Your task to perform on an android device: toggle javascript in the chrome app Image 0: 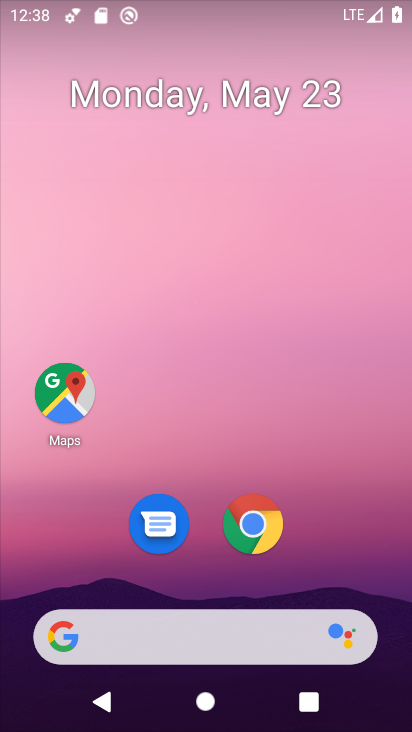
Step 0: click (261, 519)
Your task to perform on an android device: toggle javascript in the chrome app Image 1: 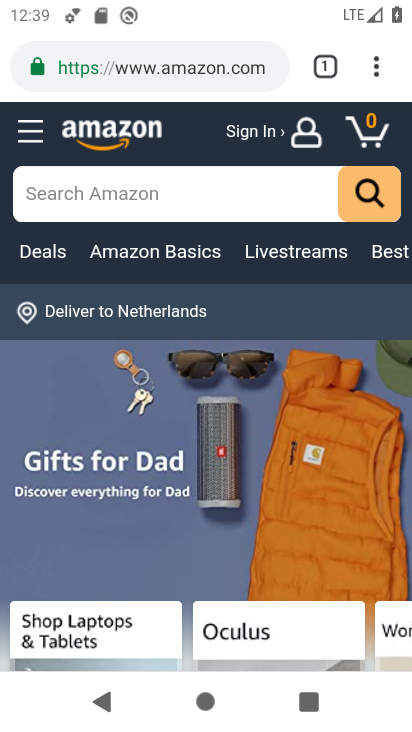
Step 1: click (373, 63)
Your task to perform on an android device: toggle javascript in the chrome app Image 2: 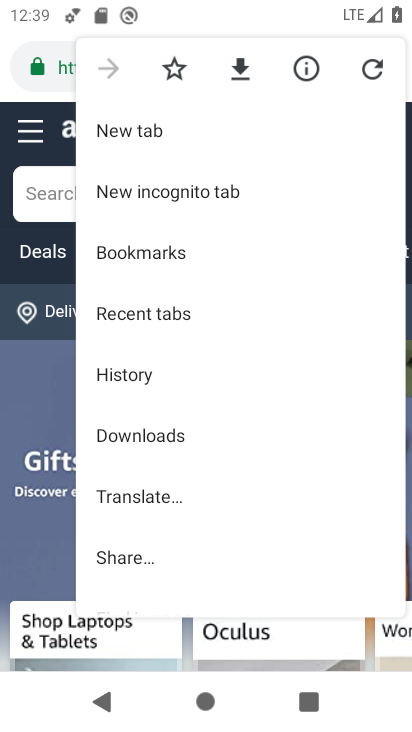
Step 2: drag from (261, 440) to (252, 187)
Your task to perform on an android device: toggle javascript in the chrome app Image 3: 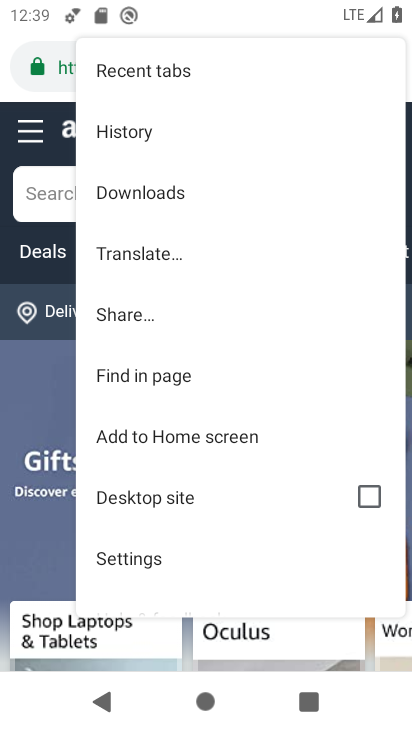
Step 3: click (159, 549)
Your task to perform on an android device: toggle javascript in the chrome app Image 4: 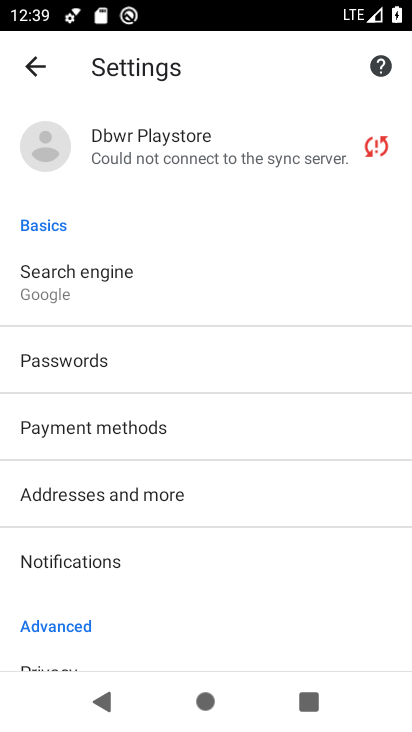
Step 4: drag from (254, 521) to (262, 127)
Your task to perform on an android device: toggle javascript in the chrome app Image 5: 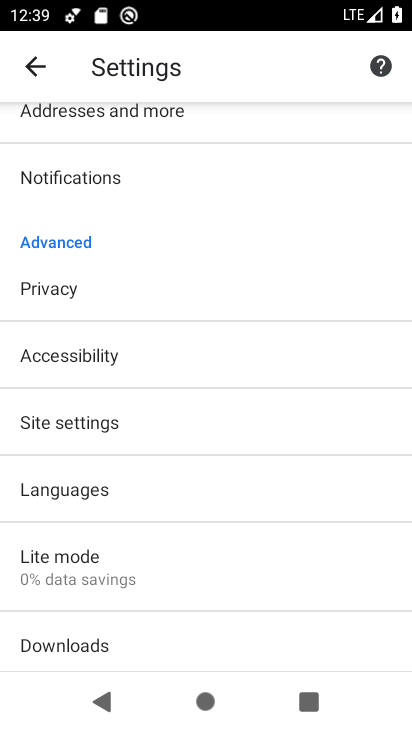
Step 5: click (139, 422)
Your task to perform on an android device: toggle javascript in the chrome app Image 6: 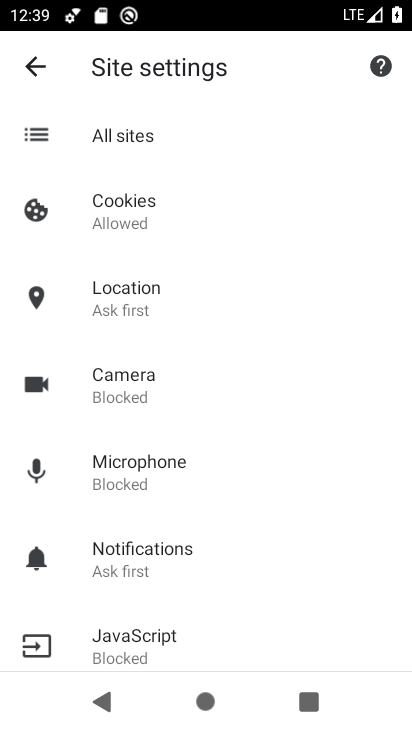
Step 6: click (169, 639)
Your task to perform on an android device: toggle javascript in the chrome app Image 7: 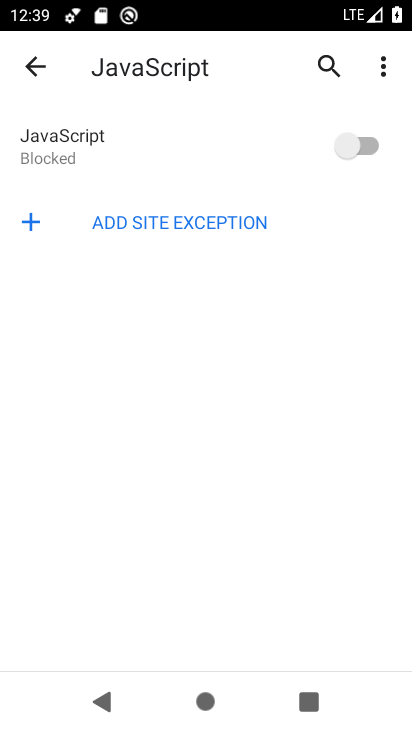
Step 7: click (366, 140)
Your task to perform on an android device: toggle javascript in the chrome app Image 8: 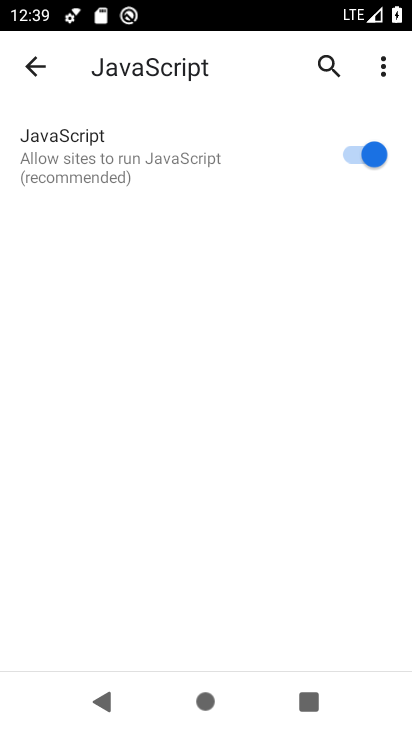
Step 8: task complete